Your task to perform on an android device: open sync settings in chrome Image 0: 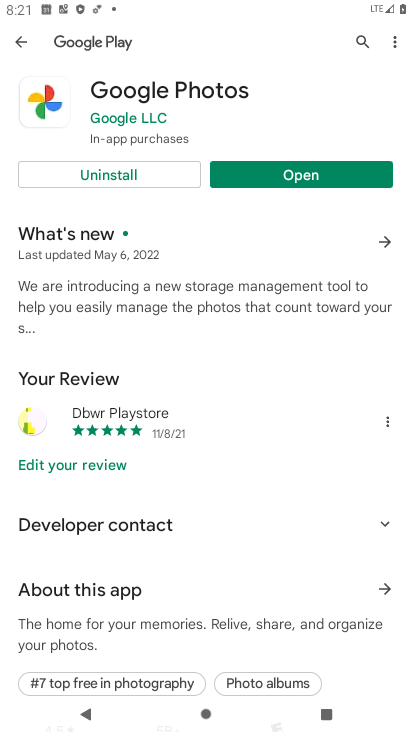
Step 0: press home button
Your task to perform on an android device: open sync settings in chrome Image 1: 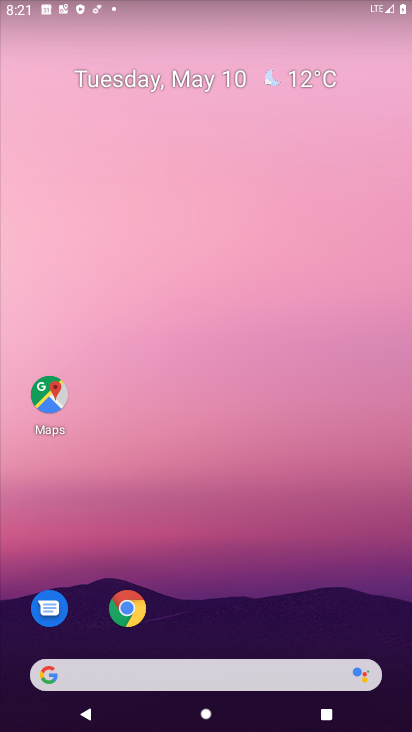
Step 1: drag from (114, 683) to (331, 184)
Your task to perform on an android device: open sync settings in chrome Image 2: 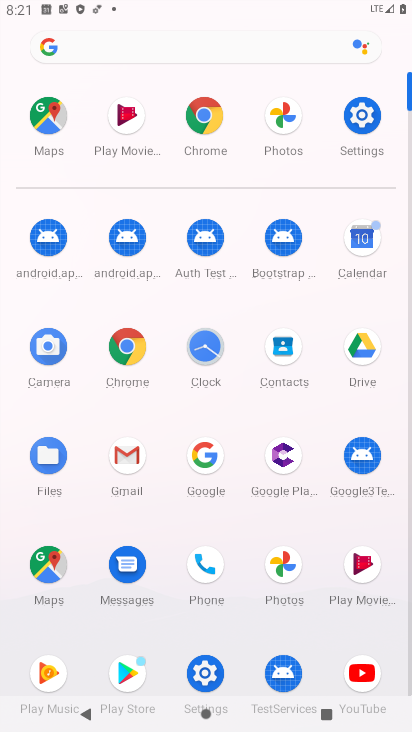
Step 2: click (197, 123)
Your task to perform on an android device: open sync settings in chrome Image 3: 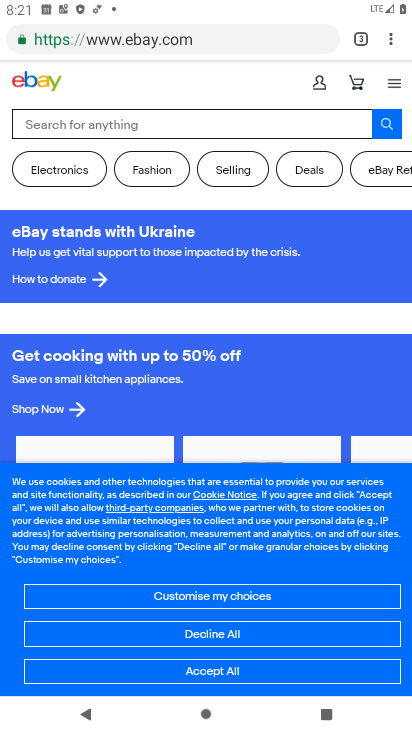
Step 3: drag from (389, 42) to (251, 475)
Your task to perform on an android device: open sync settings in chrome Image 4: 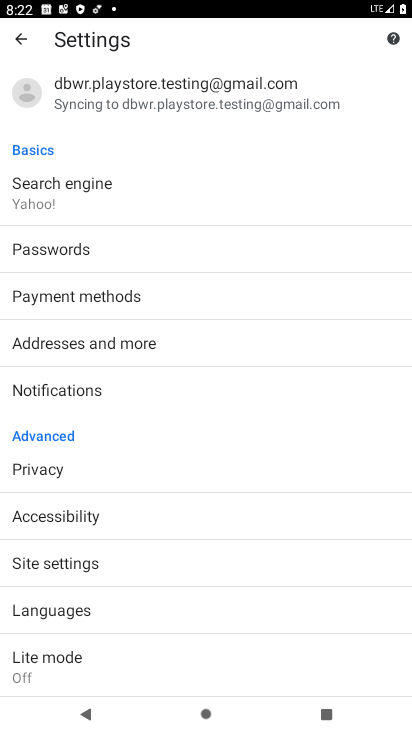
Step 4: click (146, 110)
Your task to perform on an android device: open sync settings in chrome Image 5: 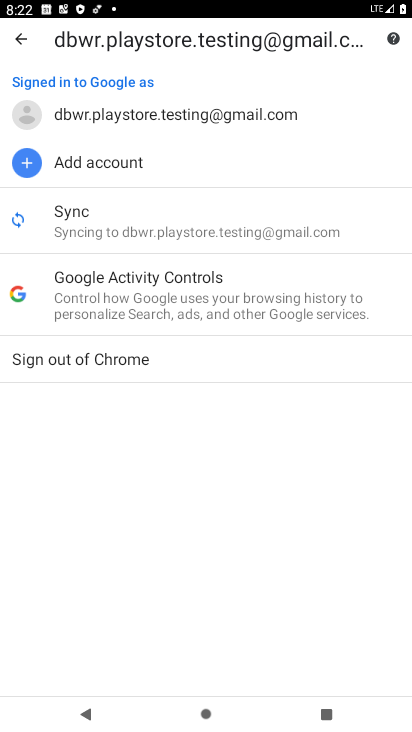
Step 5: click (111, 221)
Your task to perform on an android device: open sync settings in chrome Image 6: 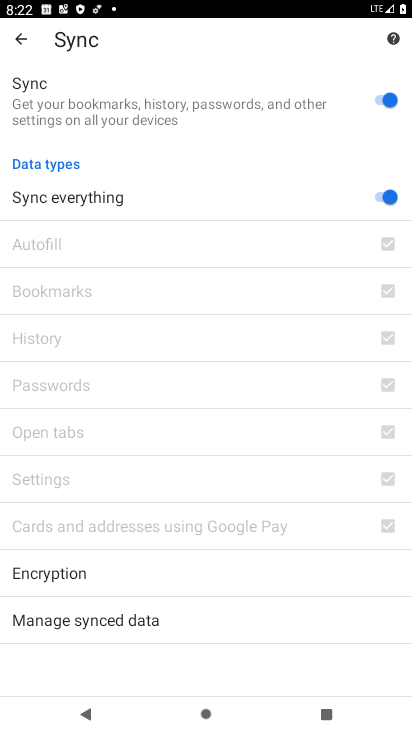
Step 6: task complete